Your task to perform on an android device: stop showing notifications on the lock screen Image 0: 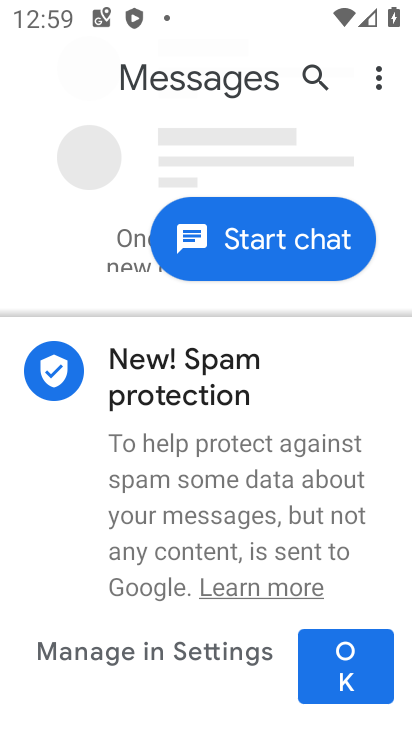
Step 0: press home button
Your task to perform on an android device: stop showing notifications on the lock screen Image 1: 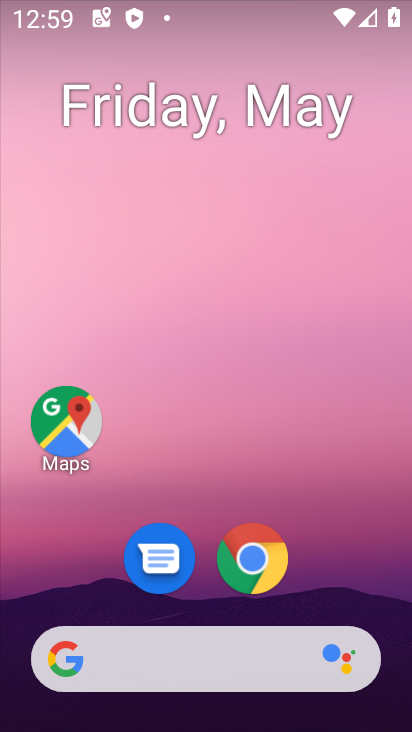
Step 1: drag from (369, 542) to (329, 136)
Your task to perform on an android device: stop showing notifications on the lock screen Image 2: 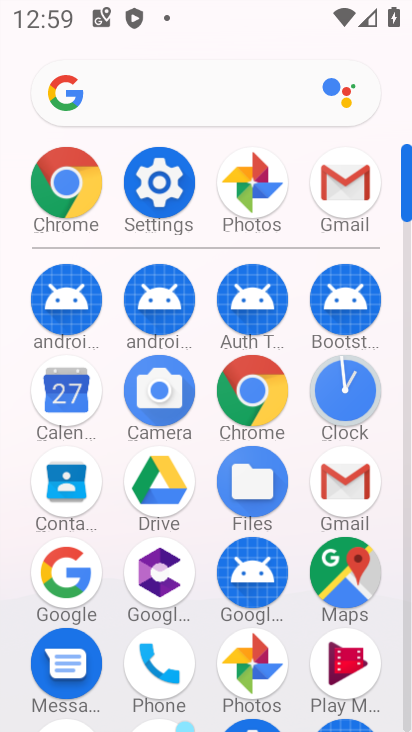
Step 2: click (142, 181)
Your task to perform on an android device: stop showing notifications on the lock screen Image 3: 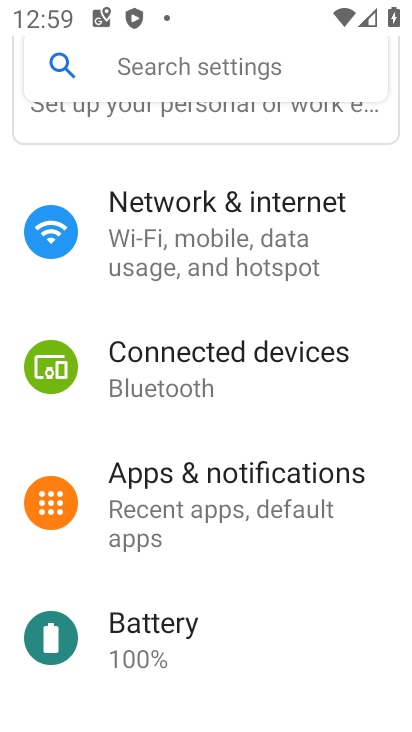
Step 3: click (216, 478)
Your task to perform on an android device: stop showing notifications on the lock screen Image 4: 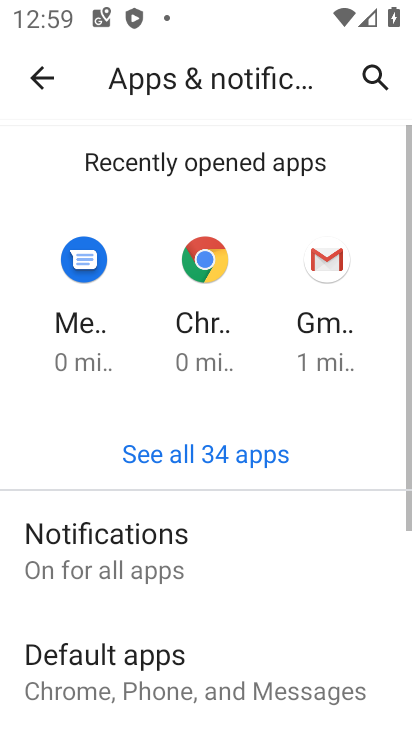
Step 4: click (235, 552)
Your task to perform on an android device: stop showing notifications on the lock screen Image 5: 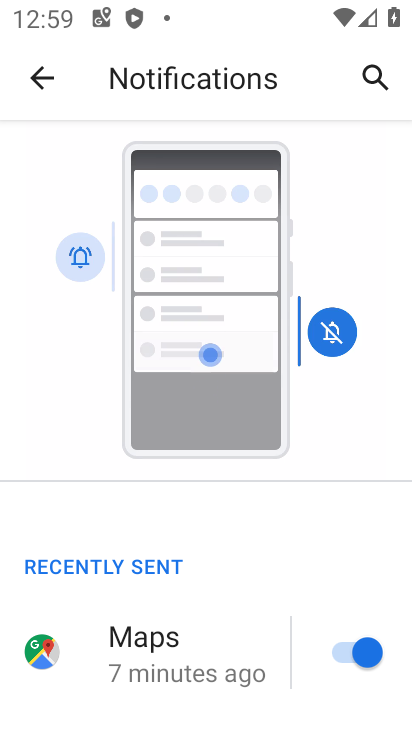
Step 5: drag from (266, 664) to (233, 161)
Your task to perform on an android device: stop showing notifications on the lock screen Image 6: 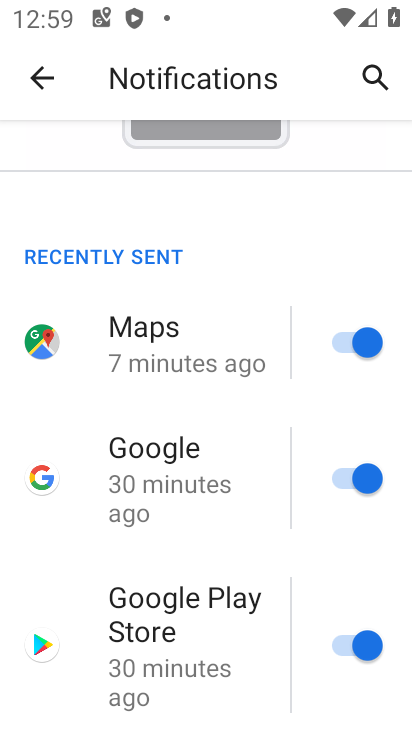
Step 6: drag from (260, 676) to (251, 220)
Your task to perform on an android device: stop showing notifications on the lock screen Image 7: 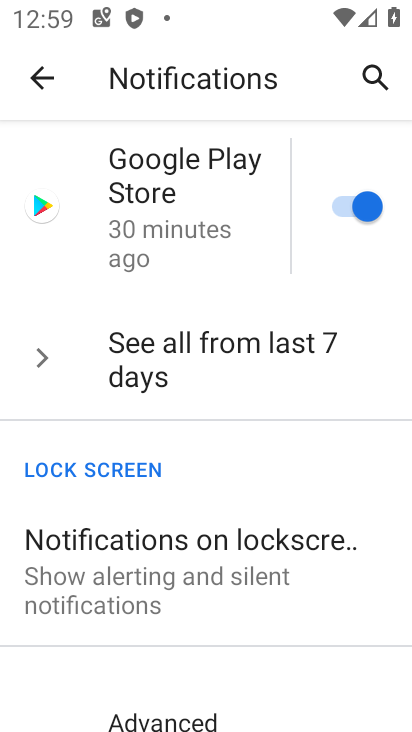
Step 7: click (252, 578)
Your task to perform on an android device: stop showing notifications on the lock screen Image 8: 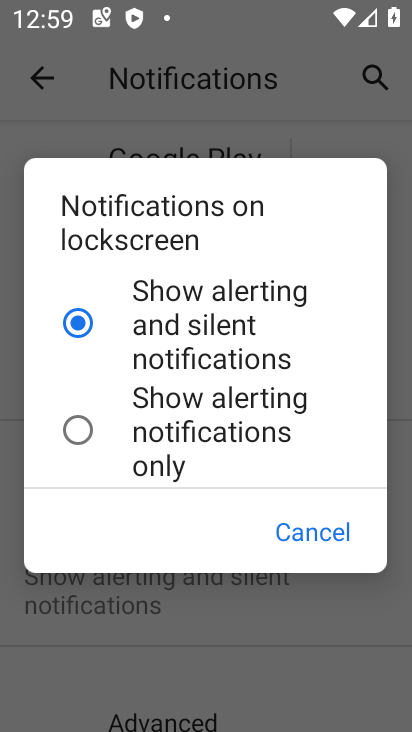
Step 8: drag from (268, 452) to (246, 222)
Your task to perform on an android device: stop showing notifications on the lock screen Image 9: 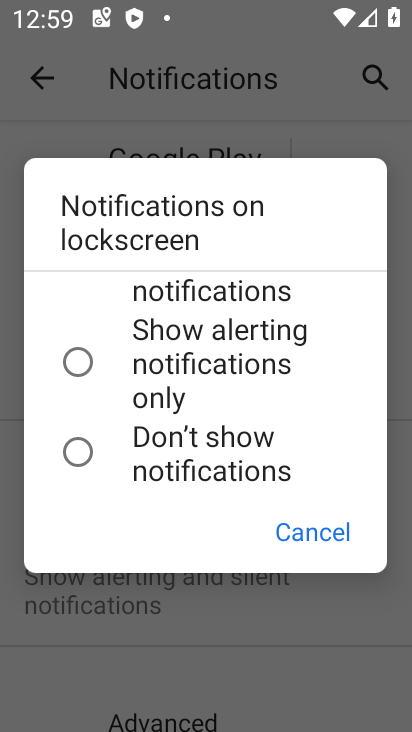
Step 9: click (230, 430)
Your task to perform on an android device: stop showing notifications on the lock screen Image 10: 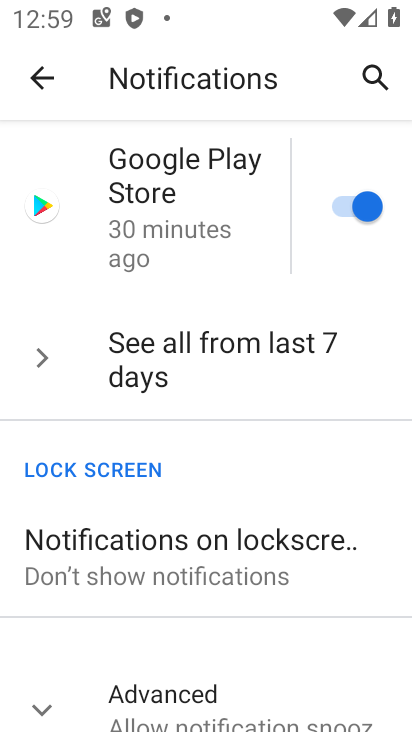
Step 10: task complete